Your task to perform on an android device: Open display settings Image 0: 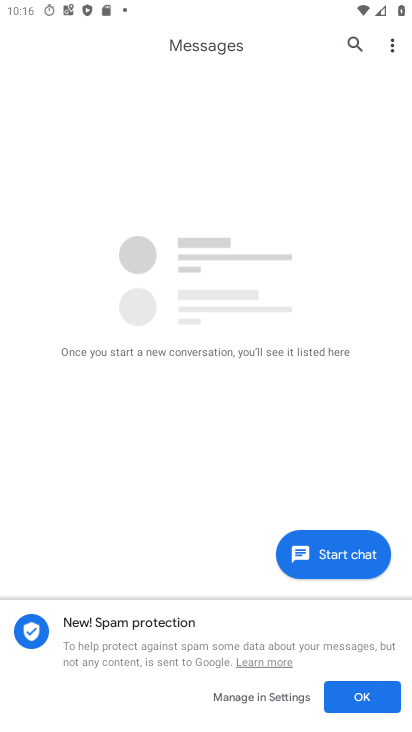
Step 0: press home button
Your task to perform on an android device: Open display settings Image 1: 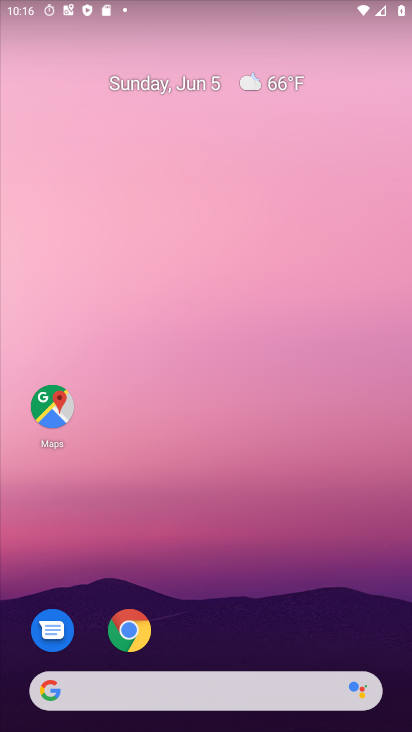
Step 1: drag from (220, 714) to (186, 40)
Your task to perform on an android device: Open display settings Image 2: 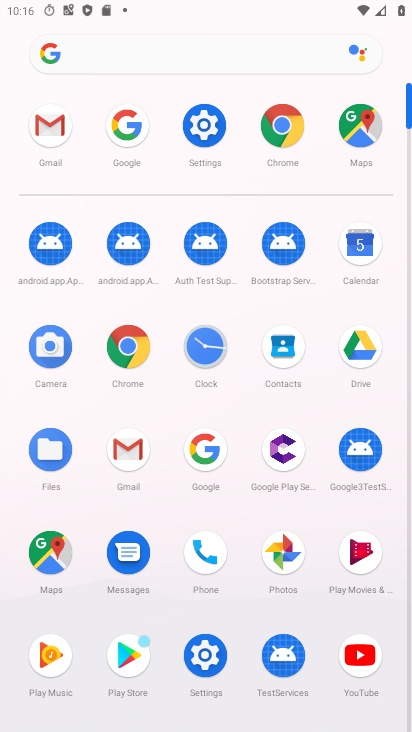
Step 2: click (206, 124)
Your task to perform on an android device: Open display settings Image 3: 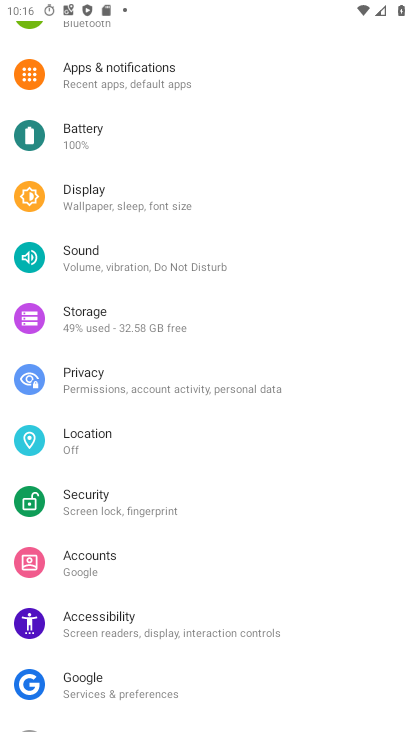
Step 3: click (87, 193)
Your task to perform on an android device: Open display settings Image 4: 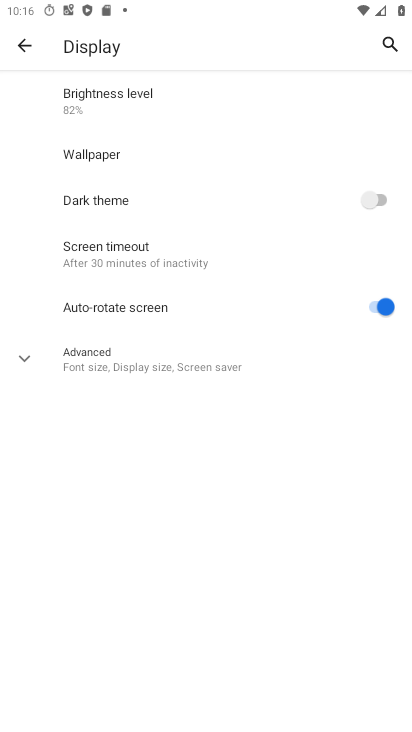
Step 4: task complete